Your task to perform on an android device: Go to Amazon Image 0: 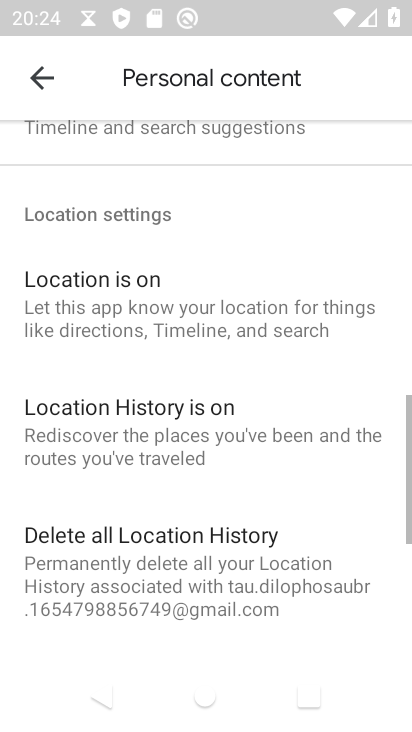
Step 0: press home button
Your task to perform on an android device: Go to Amazon Image 1: 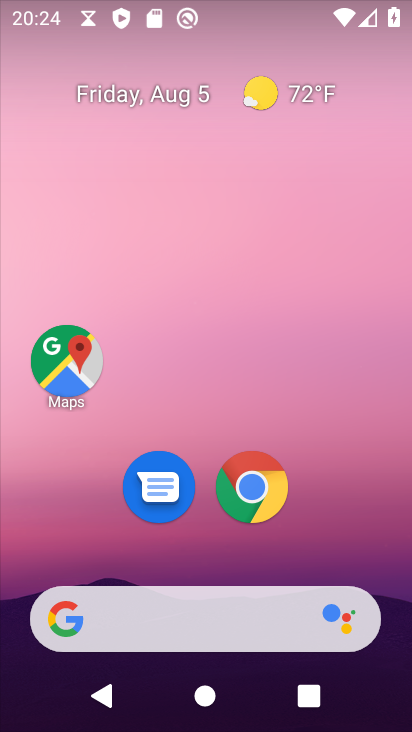
Step 1: click (249, 483)
Your task to perform on an android device: Go to Amazon Image 2: 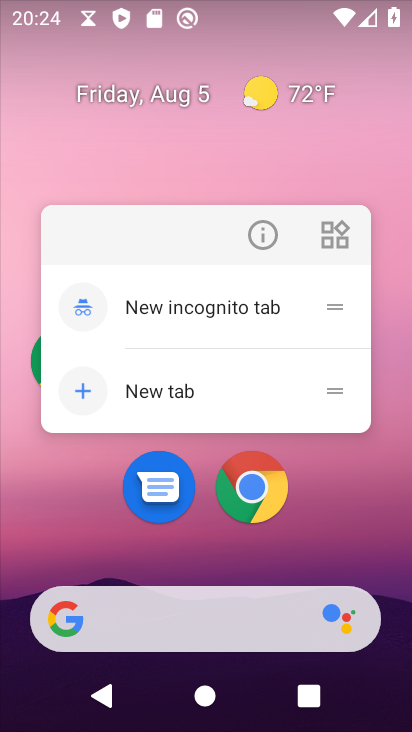
Step 2: click (252, 491)
Your task to perform on an android device: Go to Amazon Image 3: 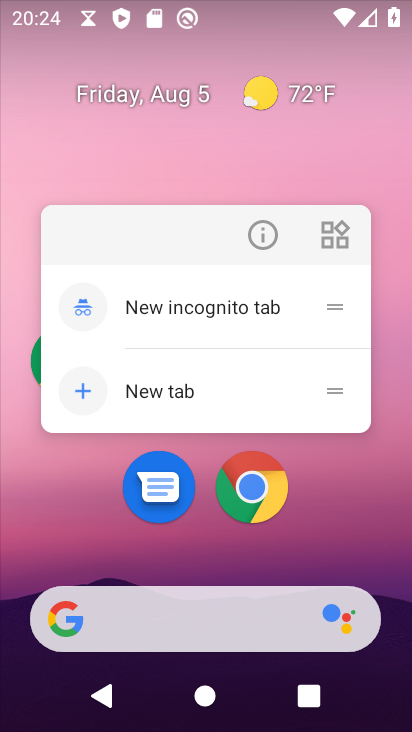
Step 3: click (252, 492)
Your task to perform on an android device: Go to Amazon Image 4: 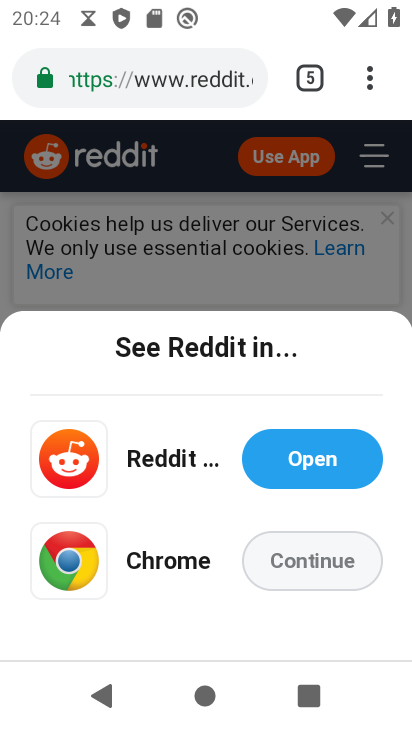
Step 4: drag from (369, 82) to (160, 158)
Your task to perform on an android device: Go to Amazon Image 5: 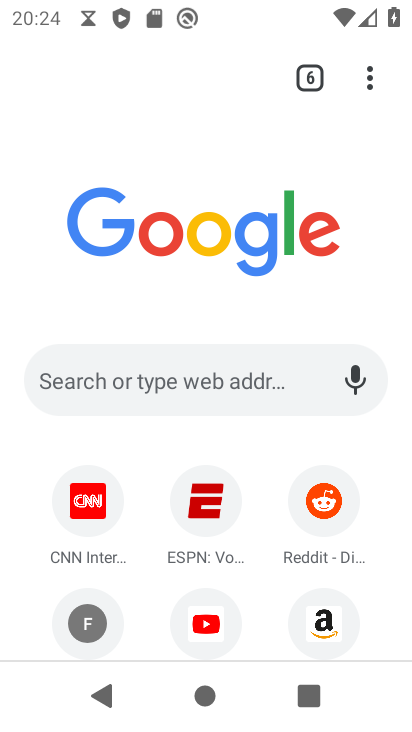
Step 5: drag from (254, 541) to (335, 157)
Your task to perform on an android device: Go to Amazon Image 6: 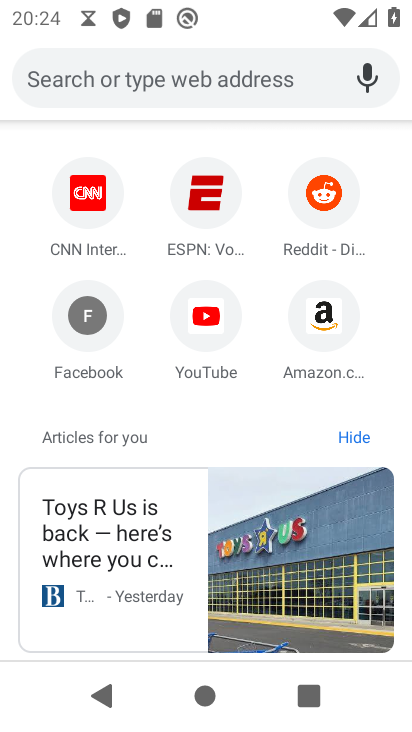
Step 6: click (328, 311)
Your task to perform on an android device: Go to Amazon Image 7: 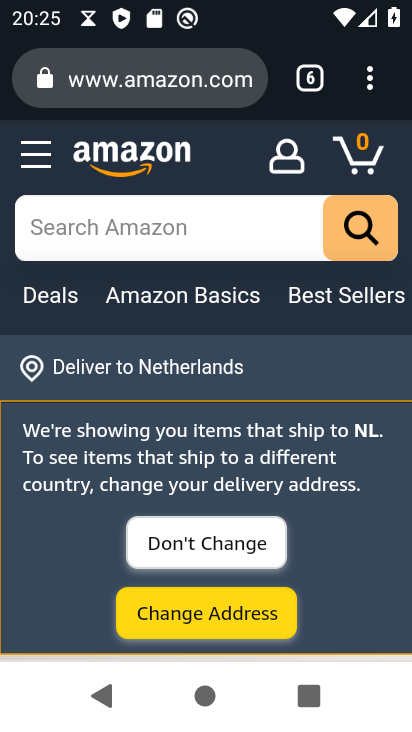
Step 7: task complete